Your task to perform on an android device: toggle location history Image 0: 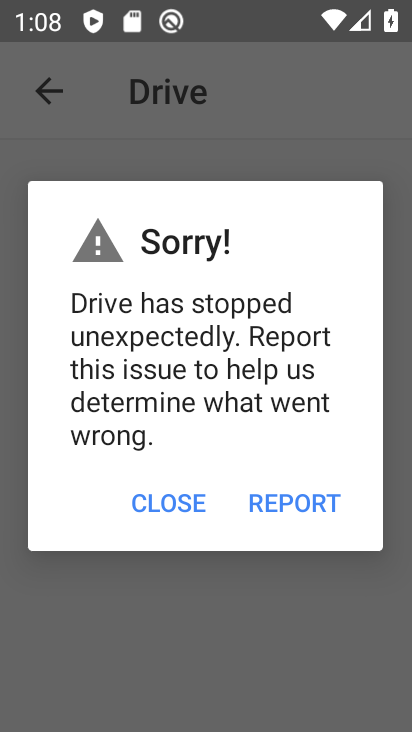
Step 0: press home button
Your task to perform on an android device: toggle location history Image 1: 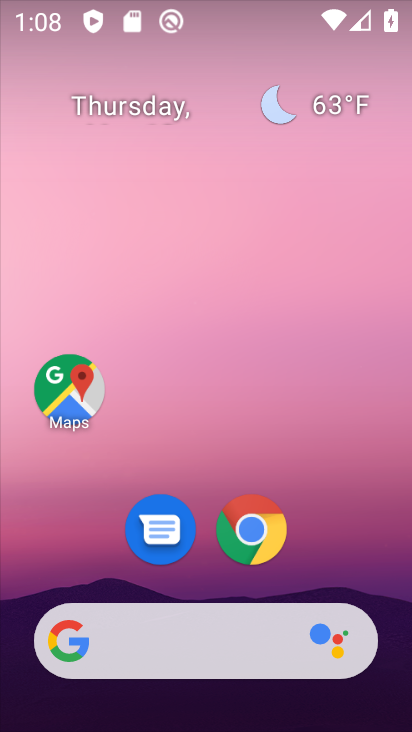
Step 1: drag from (322, 560) to (234, 53)
Your task to perform on an android device: toggle location history Image 2: 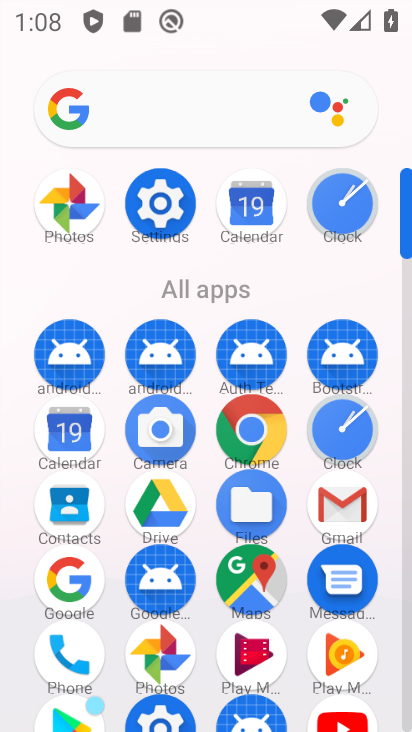
Step 2: click (160, 202)
Your task to perform on an android device: toggle location history Image 3: 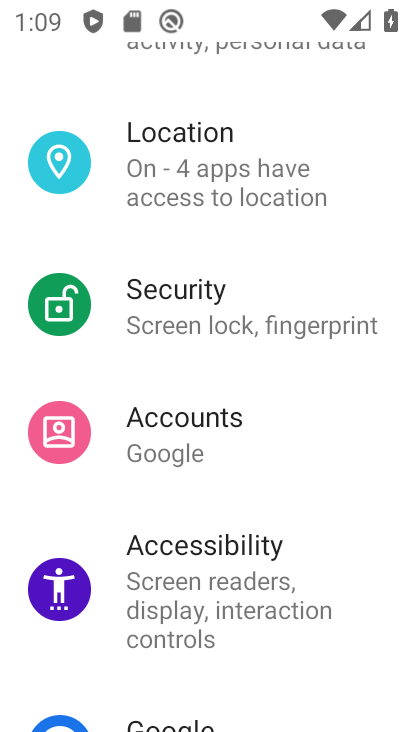
Step 3: click (179, 133)
Your task to perform on an android device: toggle location history Image 4: 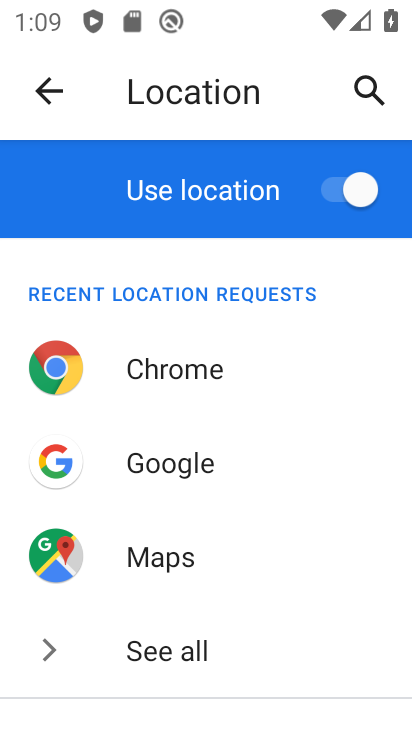
Step 4: drag from (230, 544) to (245, 393)
Your task to perform on an android device: toggle location history Image 5: 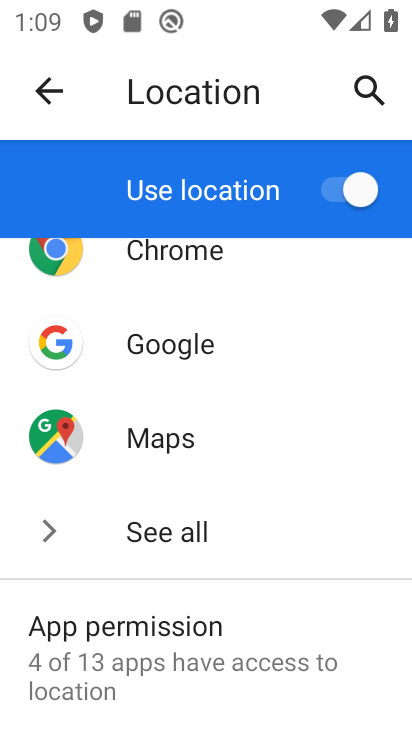
Step 5: drag from (247, 614) to (280, 482)
Your task to perform on an android device: toggle location history Image 6: 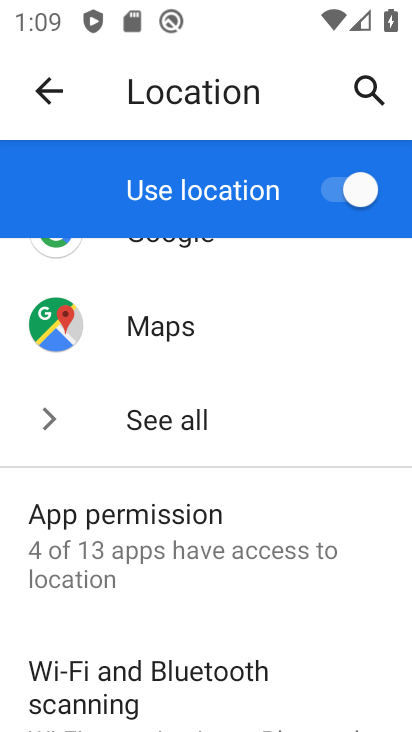
Step 6: drag from (204, 625) to (285, 459)
Your task to perform on an android device: toggle location history Image 7: 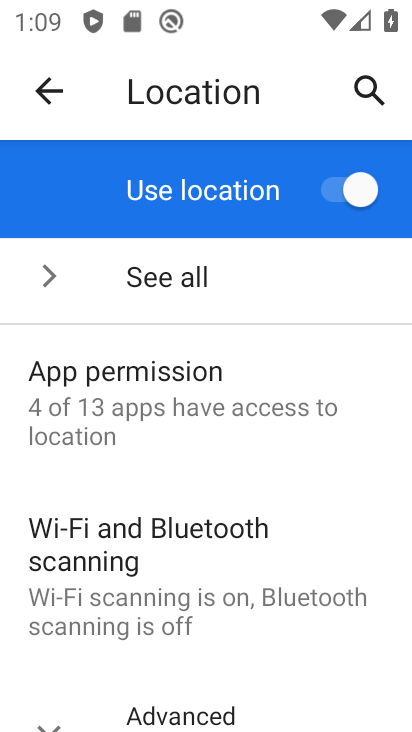
Step 7: drag from (217, 645) to (298, 480)
Your task to perform on an android device: toggle location history Image 8: 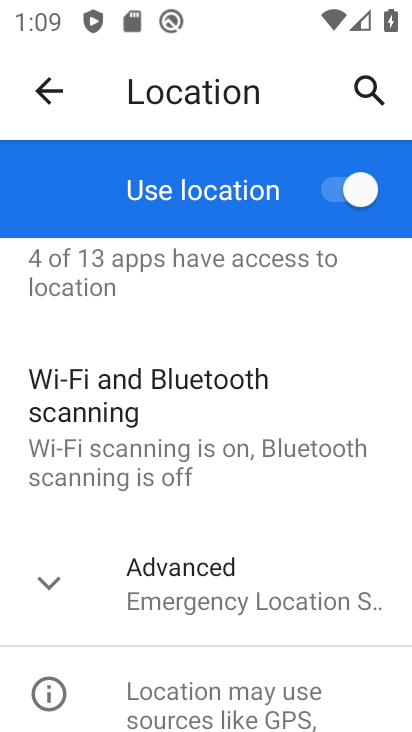
Step 8: click (196, 577)
Your task to perform on an android device: toggle location history Image 9: 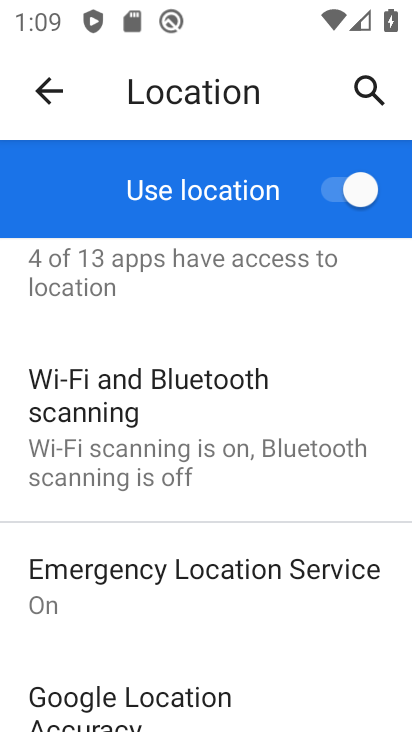
Step 9: drag from (175, 651) to (250, 537)
Your task to perform on an android device: toggle location history Image 10: 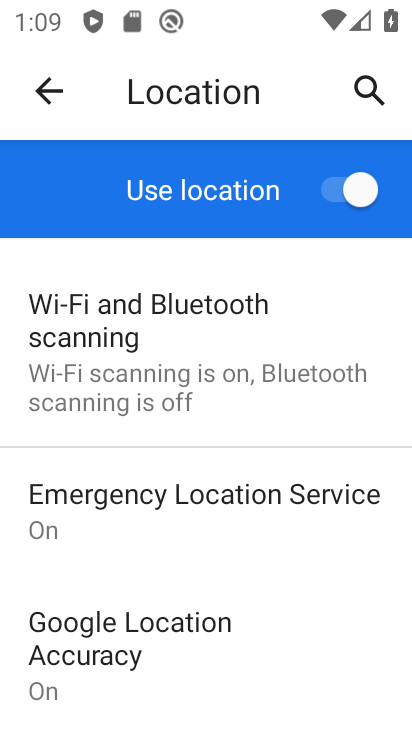
Step 10: drag from (249, 619) to (289, 398)
Your task to perform on an android device: toggle location history Image 11: 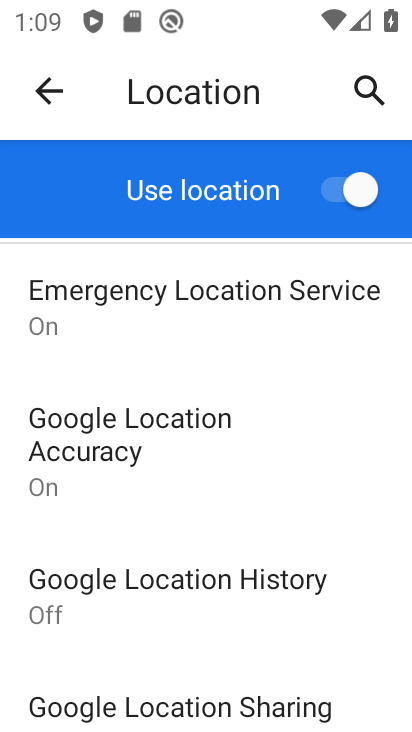
Step 11: click (174, 578)
Your task to perform on an android device: toggle location history Image 12: 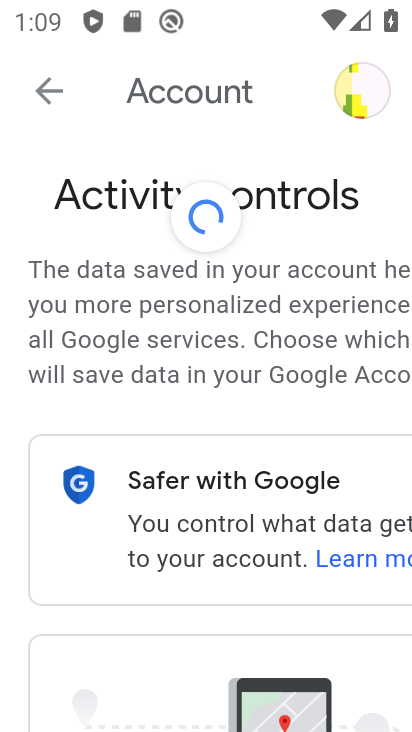
Step 12: drag from (145, 627) to (220, 235)
Your task to perform on an android device: toggle location history Image 13: 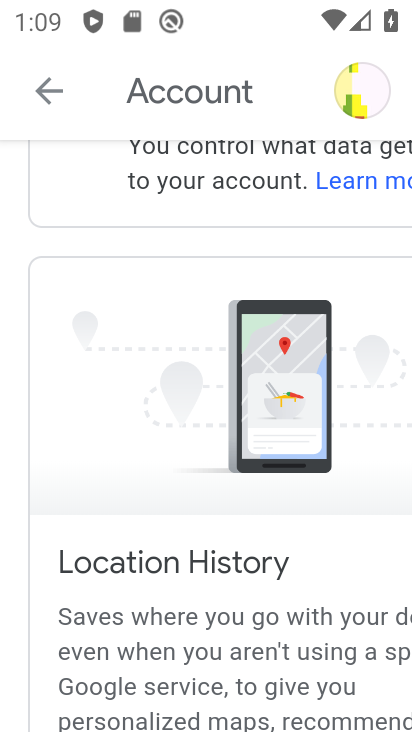
Step 13: drag from (141, 540) to (257, 201)
Your task to perform on an android device: toggle location history Image 14: 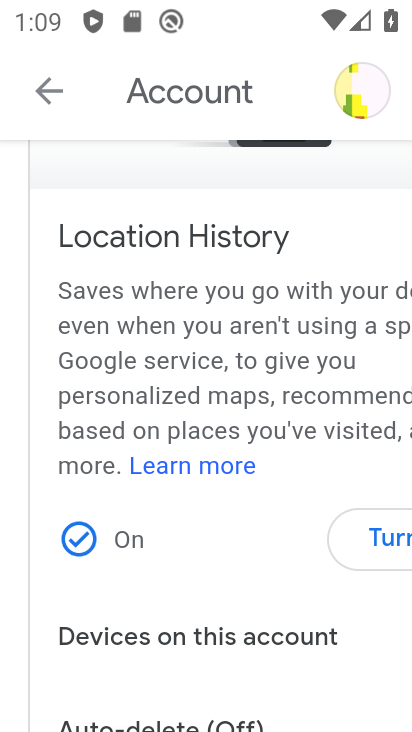
Step 14: click (229, 382)
Your task to perform on an android device: toggle location history Image 15: 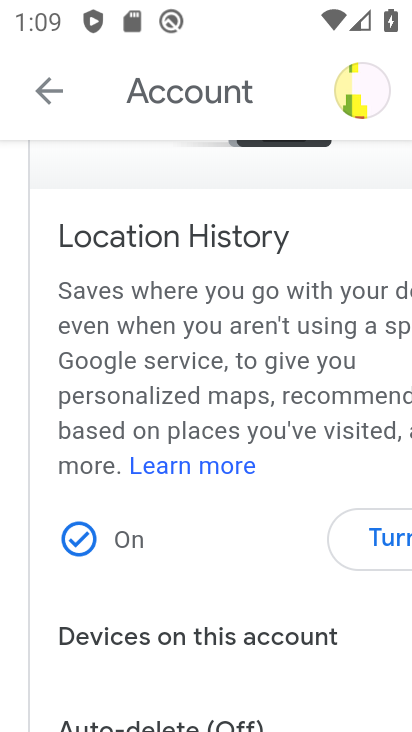
Step 15: click (385, 541)
Your task to perform on an android device: toggle location history Image 16: 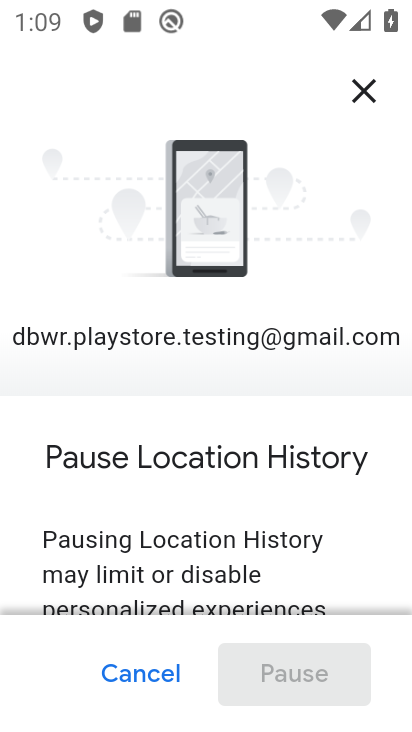
Step 16: drag from (250, 572) to (265, 372)
Your task to perform on an android device: toggle location history Image 17: 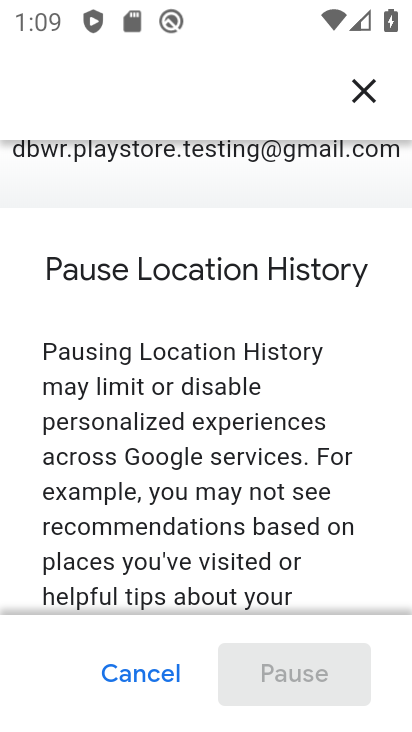
Step 17: drag from (270, 549) to (293, 287)
Your task to perform on an android device: toggle location history Image 18: 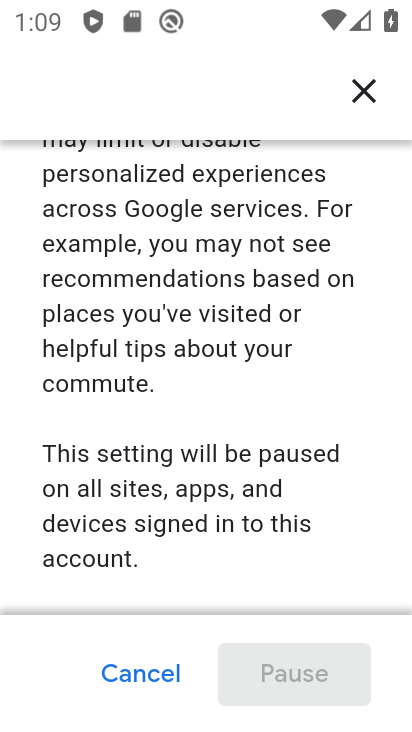
Step 18: drag from (274, 445) to (301, 207)
Your task to perform on an android device: toggle location history Image 19: 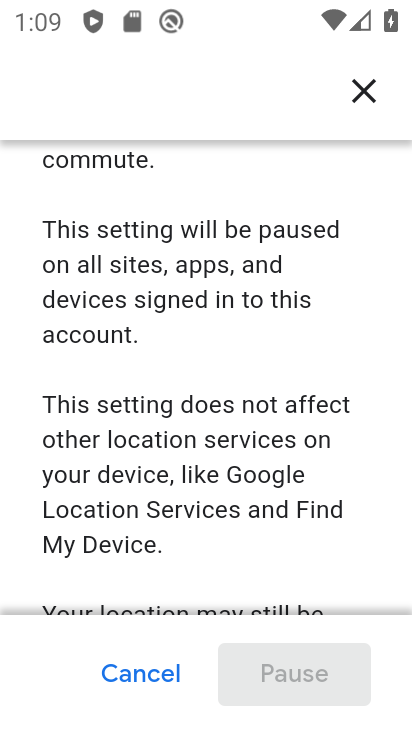
Step 19: drag from (266, 474) to (316, 201)
Your task to perform on an android device: toggle location history Image 20: 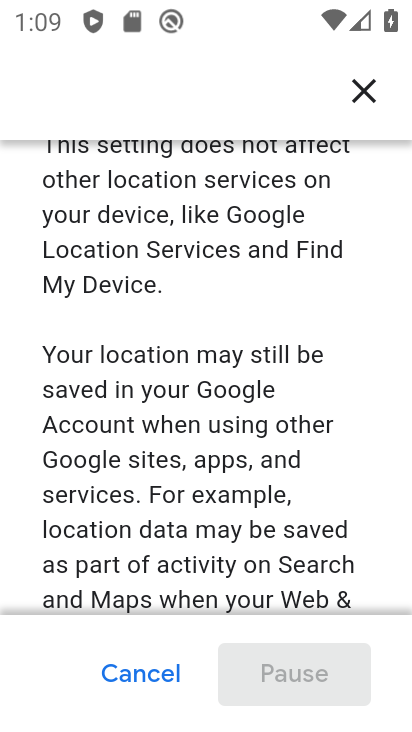
Step 20: drag from (246, 473) to (309, 234)
Your task to perform on an android device: toggle location history Image 21: 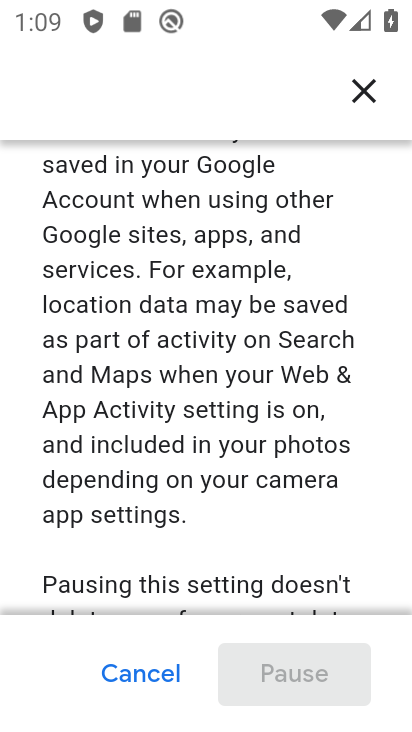
Step 21: drag from (232, 492) to (329, 238)
Your task to perform on an android device: toggle location history Image 22: 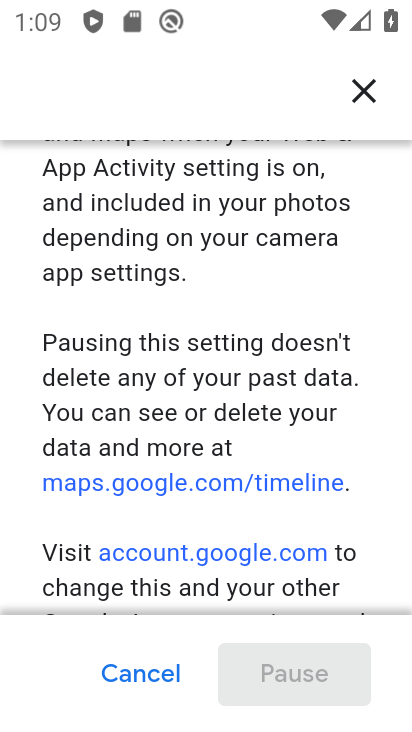
Step 22: drag from (268, 502) to (322, 247)
Your task to perform on an android device: toggle location history Image 23: 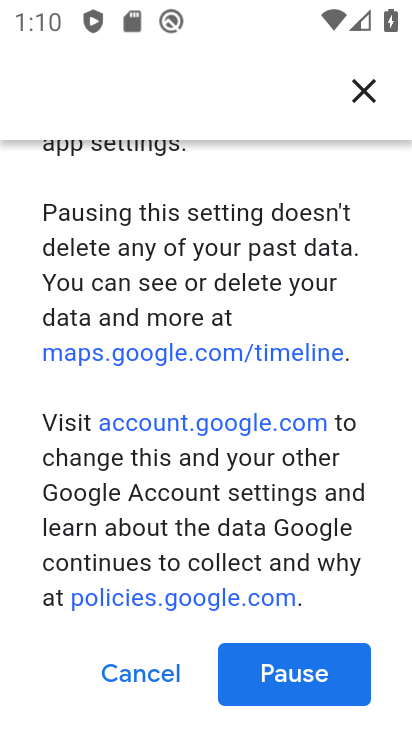
Step 23: click (289, 681)
Your task to perform on an android device: toggle location history Image 24: 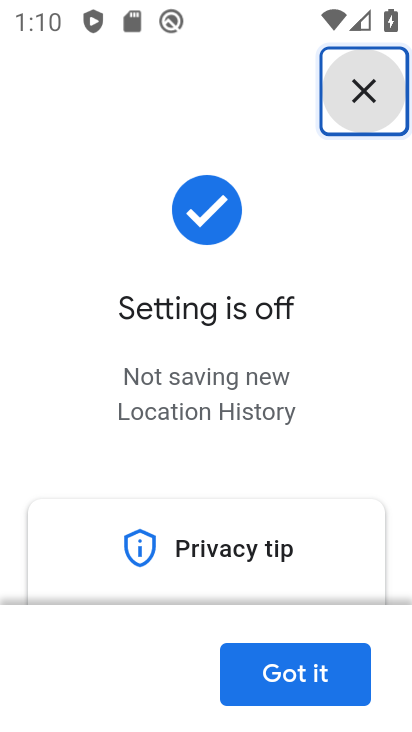
Step 24: click (289, 681)
Your task to perform on an android device: toggle location history Image 25: 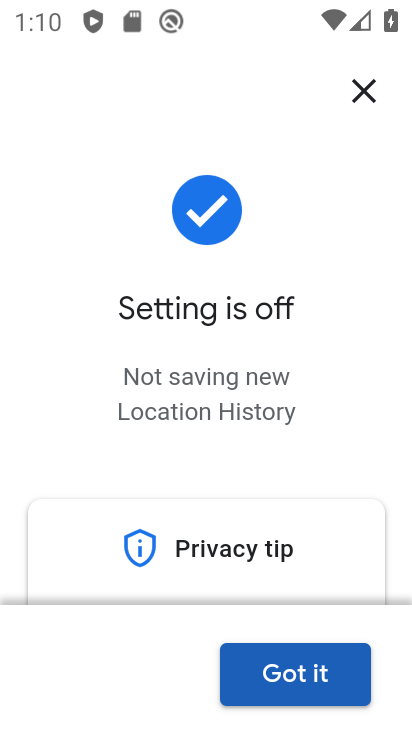
Step 25: click (293, 676)
Your task to perform on an android device: toggle location history Image 26: 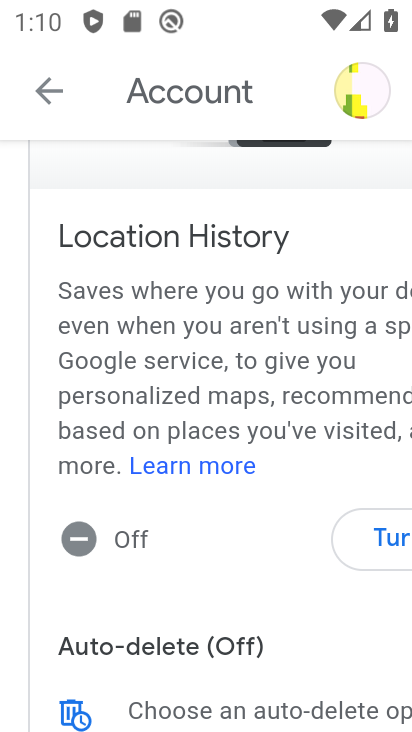
Step 26: task complete